Your task to perform on an android device: toggle priority inbox in the gmail app Image 0: 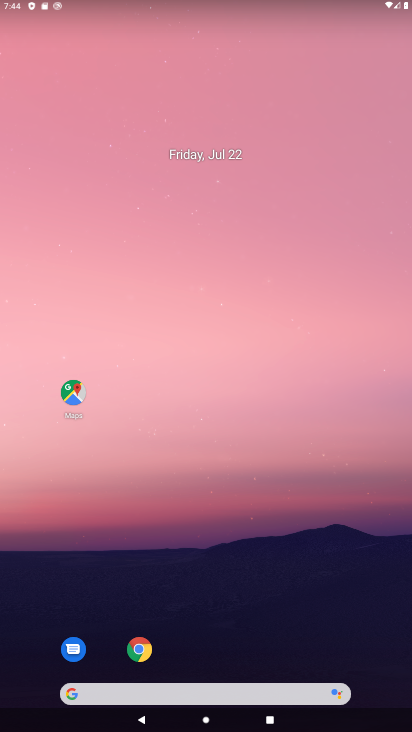
Step 0: drag from (205, 526) to (234, 96)
Your task to perform on an android device: toggle priority inbox in the gmail app Image 1: 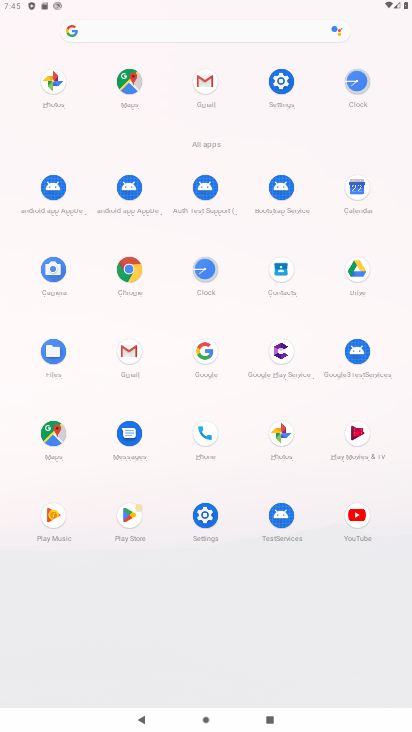
Step 1: click (127, 355)
Your task to perform on an android device: toggle priority inbox in the gmail app Image 2: 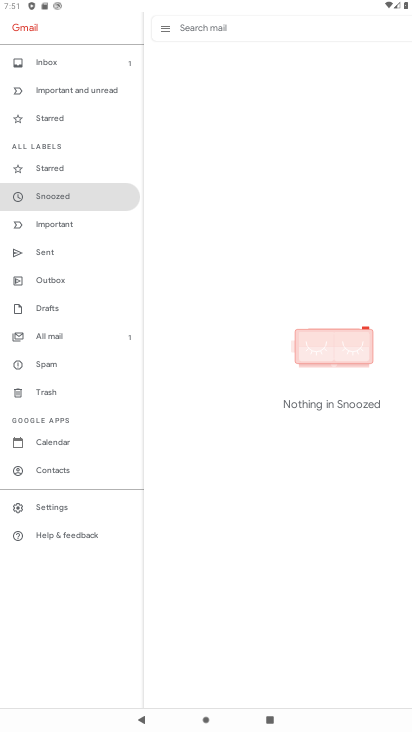
Step 2: press home button
Your task to perform on an android device: toggle priority inbox in the gmail app Image 3: 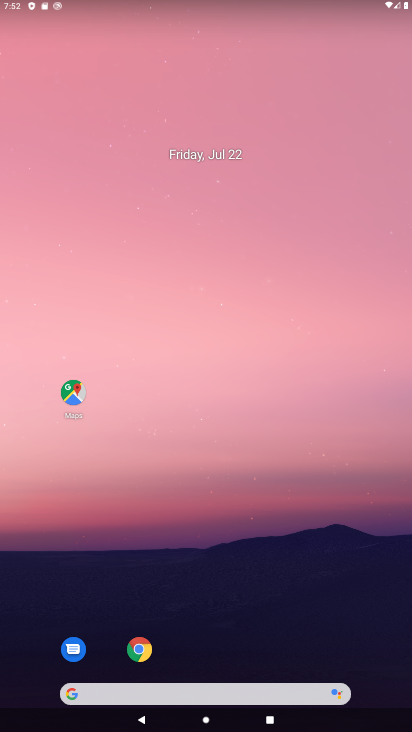
Step 3: drag from (274, 554) to (291, 229)
Your task to perform on an android device: toggle priority inbox in the gmail app Image 4: 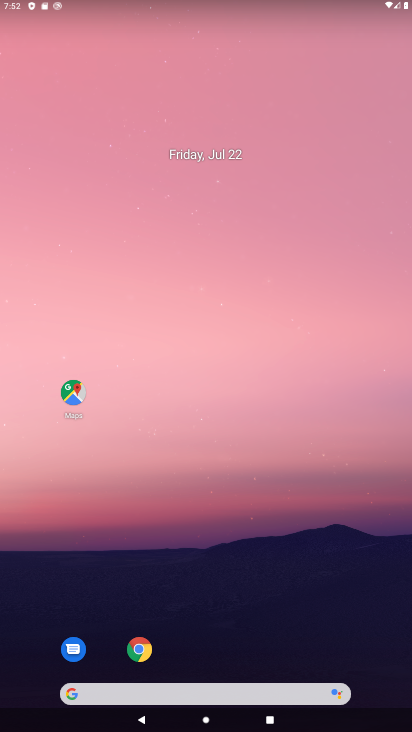
Step 4: drag from (264, 562) to (287, 200)
Your task to perform on an android device: toggle priority inbox in the gmail app Image 5: 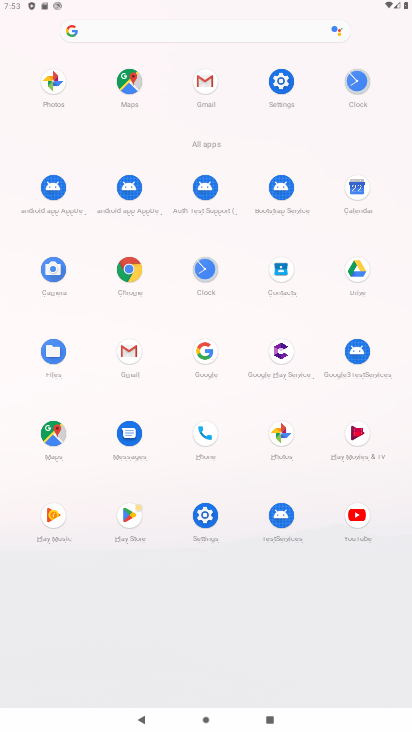
Step 5: click (128, 358)
Your task to perform on an android device: toggle priority inbox in the gmail app Image 6: 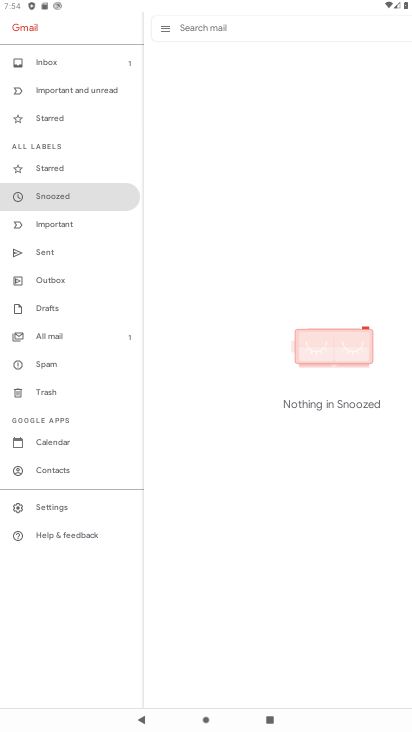
Step 6: press home button
Your task to perform on an android device: toggle priority inbox in the gmail app Image 7: 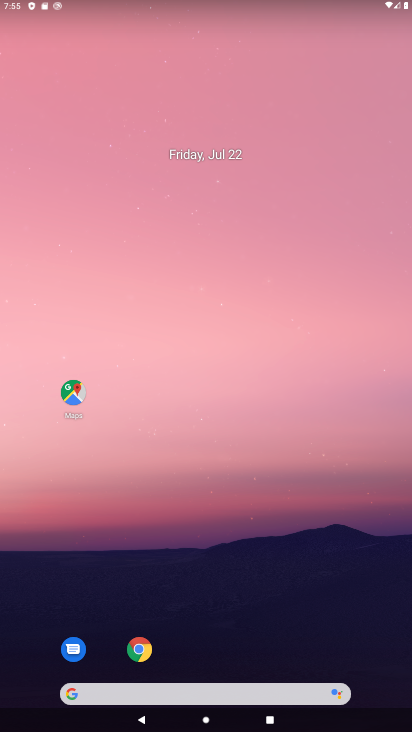
Step 7: drag from (319, 555) to (326, 149)
Your task to perform on an android device: toggle priority inbox in the gmail app Image 8: 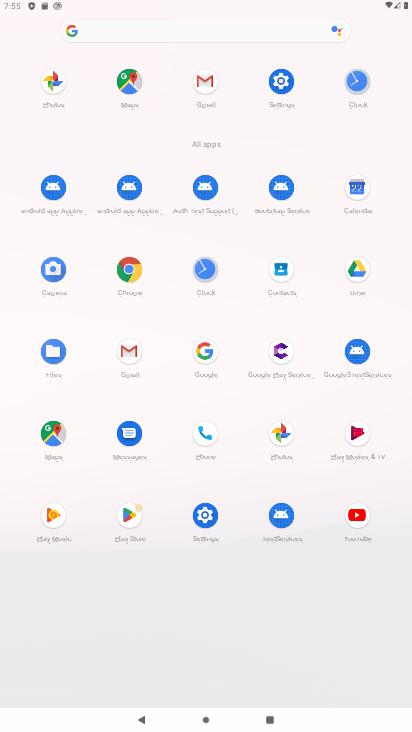
Step 8: click (215, 510)
Your task to perform on an android device: toggle priority inbox in the gmail app Image 9: 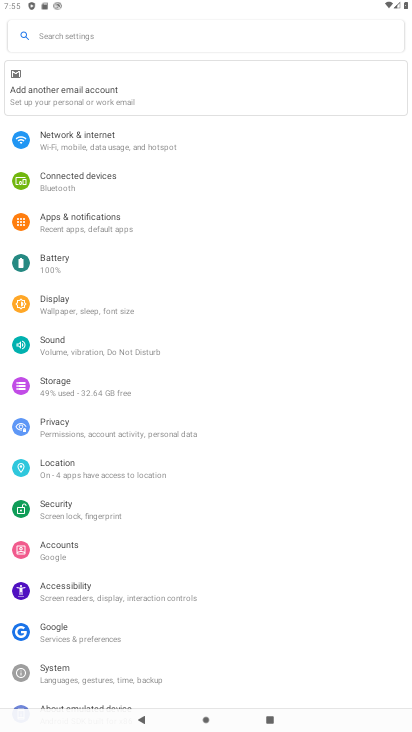
Step 9: press home button
Your task to perform on an android device: toggle priority inbox in the gmail app Image 10: 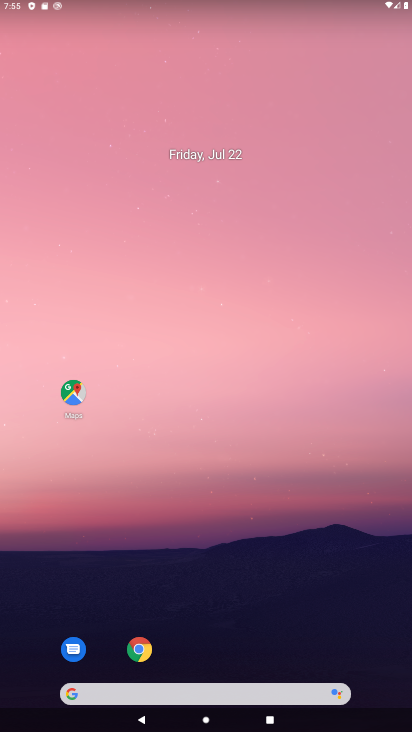
Step 10: drag from (246, 631) to (215, 217)
Your task to perform on an android device: toggle priority inbox in the gmail app Image 11: 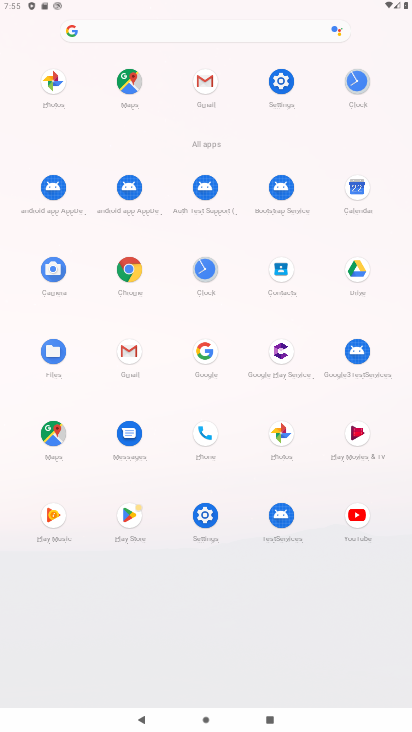
Step 11: click (207, 85)
Your task to perform on an android device: toggle priority inbox in the gmail app Image 12: 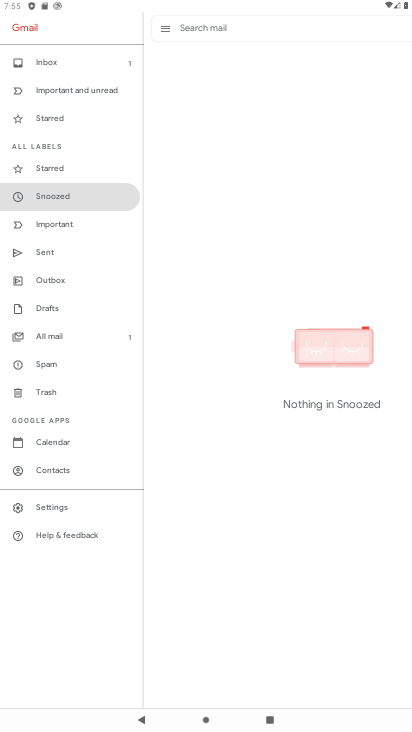
Step 12: click (52, 62)
Your task to perform on an android device: toggle priority inbox in the gmail app Image 13: 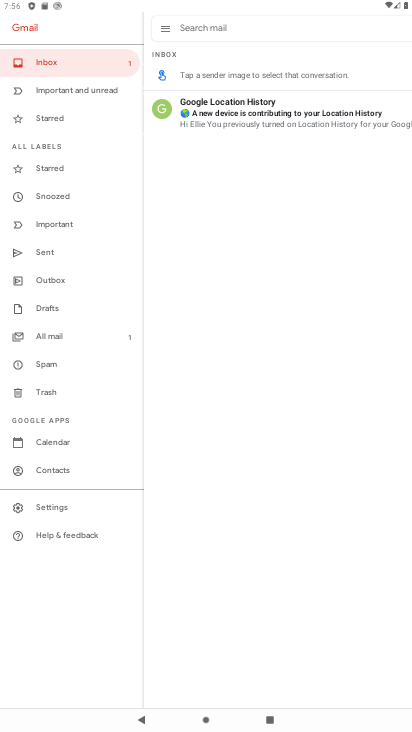
Step 13: press home button
Your task to perform on an android device: toggle priority inbox in the gmail app Image 14: 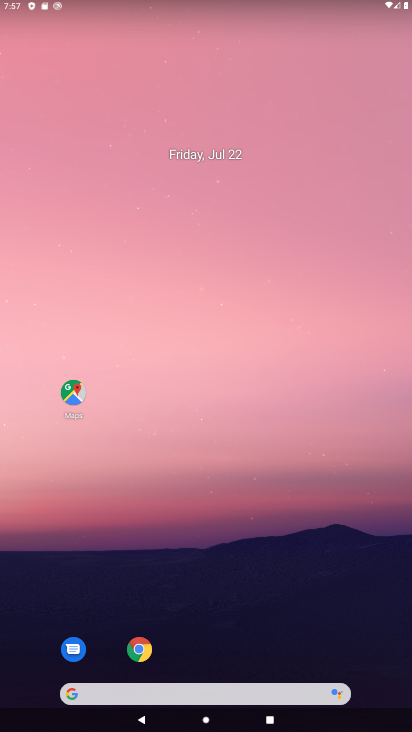
Step 14: drag from (291, 566) to (272, 248)
Your task to perform on an android device: toggle priority inbox in the gmail app Image 15: 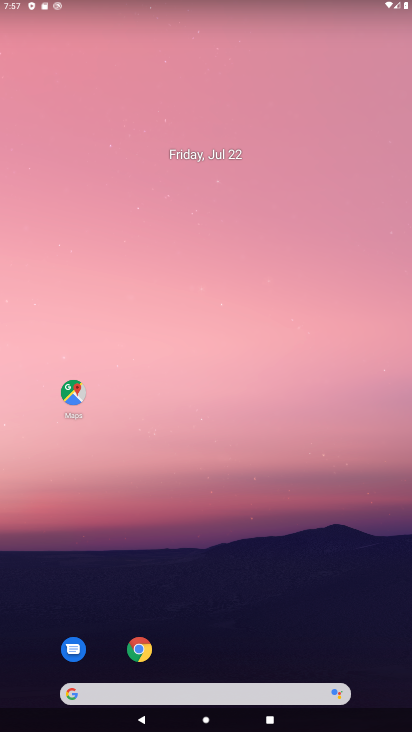
Step 15: drag from (253, 598) to (301, 222)
Your task to perform on an android device: toggle priority inbox in the gmail app Image 16: 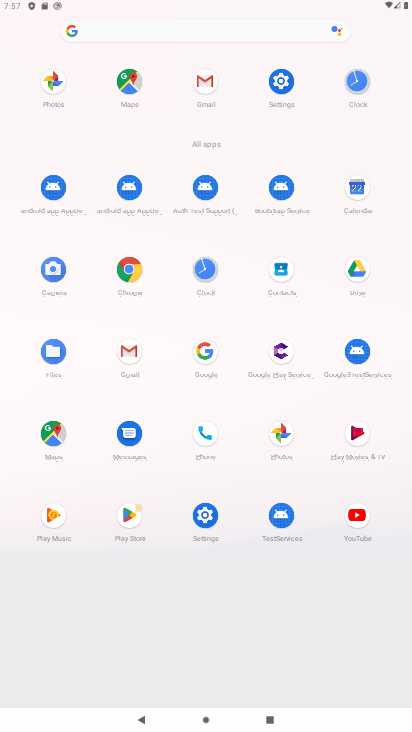
Step 16: click (134, 351)
Your task to perform on an android device: toggle priority inbox in the gmail app Image 17: 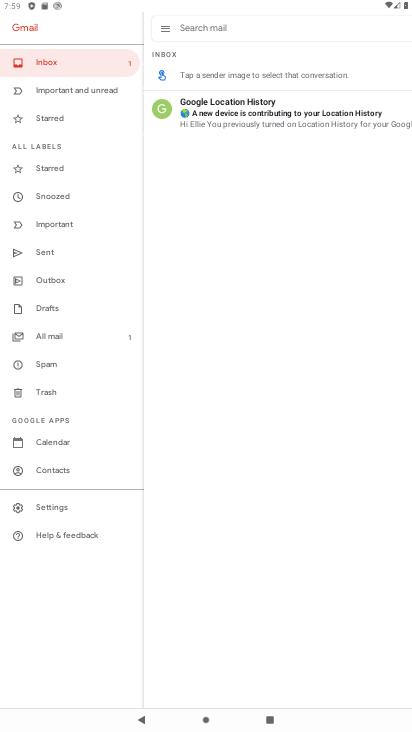
Step 17: press home button
Your task to perform on an android device: toggle priority inbox in the gmail app Image 18: 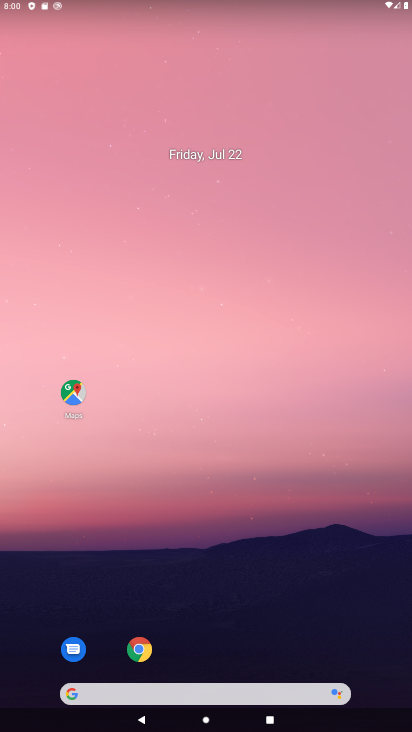
Step 18: drag from (203, 562) to (230, 93)
Your task to perform on an android device: toggle priority inbox in the gmail app Image 19: 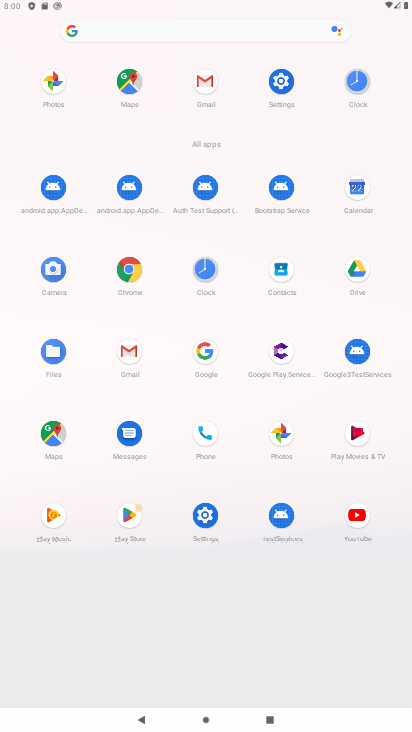
Step 19: click (129, 455)
Your task to perform on an android device: toggle priority inbox in the gmail app Image 20: 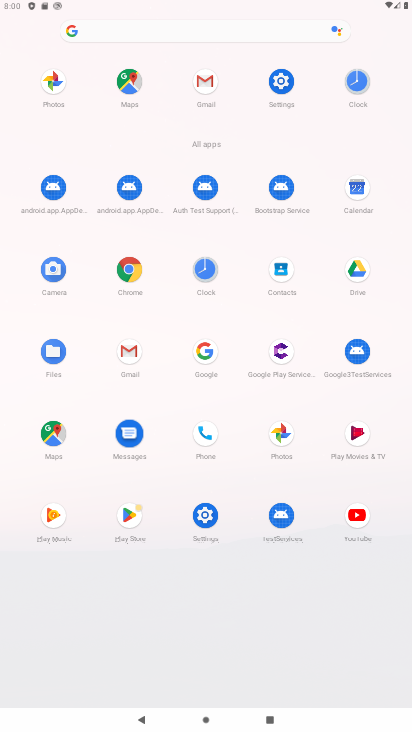
Step 20: click (132, 360)
Your task to perform on an android device: toggle priority inbox in the gmail app Image 21: 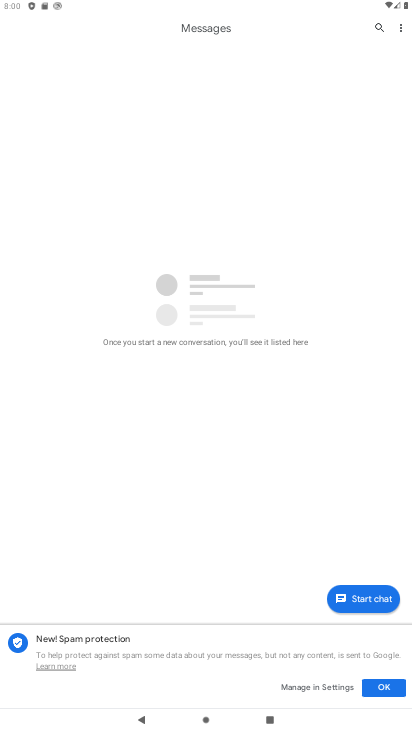
Step 21: task complete